Your task to perform on an android device: Find coffee shops on Maps Image 0: 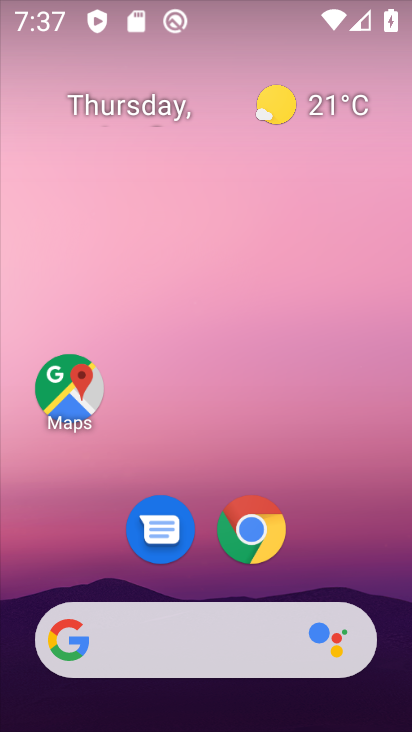
Step 0: click (50, 380)
Your task to perform on an android device: Find coffee shops on Maps Image 1: 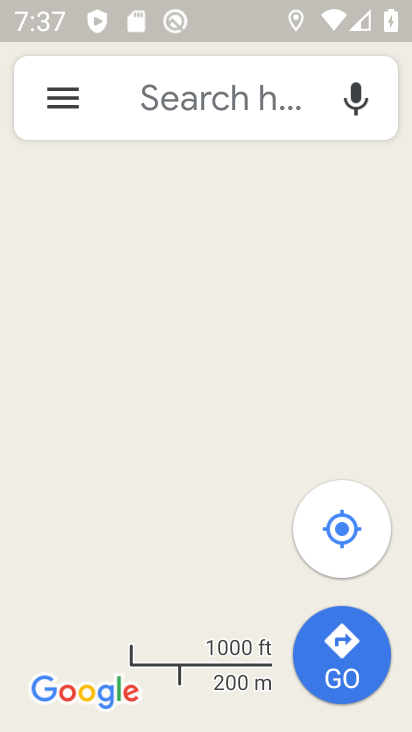
Step 1: click (144, 101)
Your task to perform on an android device: Find coffee shops on Maps Image 2: 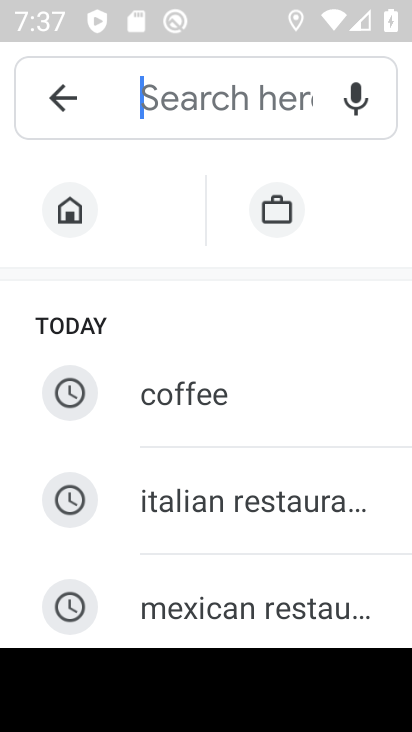
Step 2: type "cofee shop"
Your task to perform on an android device: Find coffee shops on Maps Image 3: 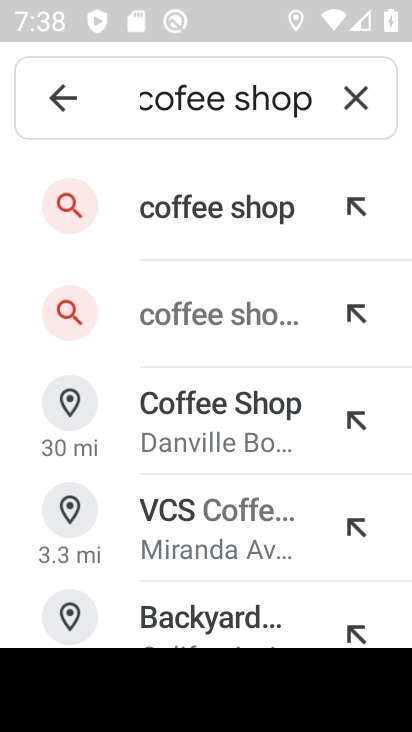
Step 3: click (292, 202)
Your task to perform on an android device: Find coffee shops on Maps Image 4: 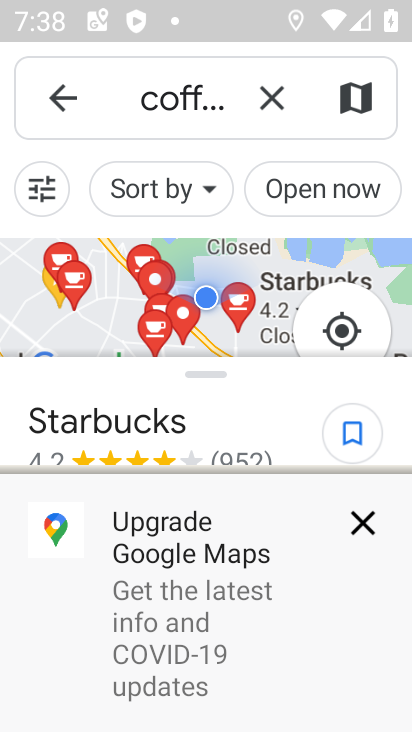
Step 4: task complete